Your task to perform on an android device: all mails in gmail Image 0: 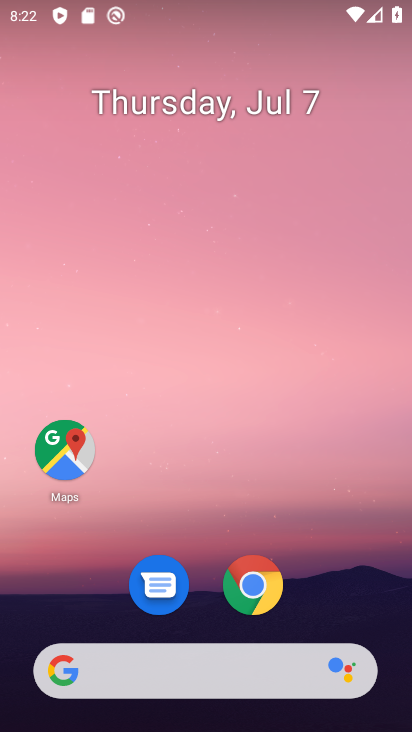
Step 0: drag from (283, 535) to (246, 42)
Your task to perform on an android device: all mails in gmail Image 1: 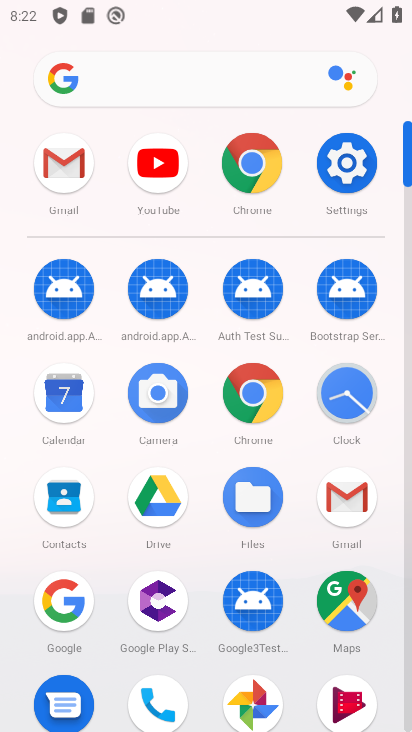
Step 1: click (70, 166)
Your task to perform on an android device: all mails in gmail Image 2: 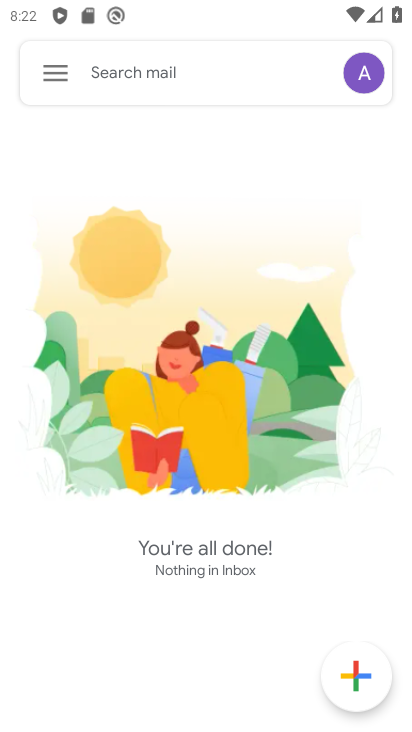
Step 2: click (59, 76)
Your task to perform on an android device: all mails in gmail Image 3: 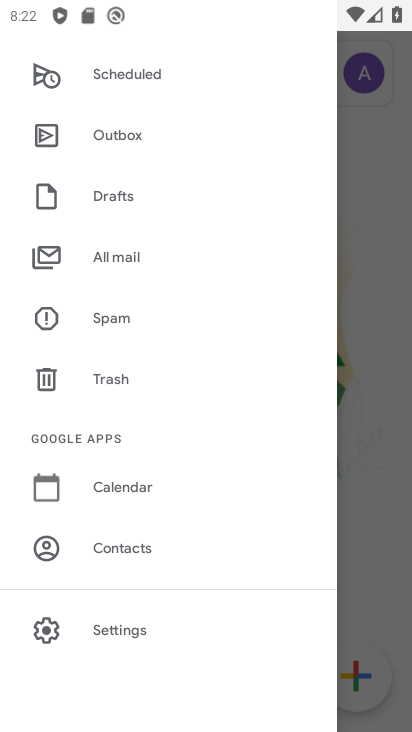
Step 3: click (127, 247)
Your task to perform on an android device: all mails in gmail Image 4: 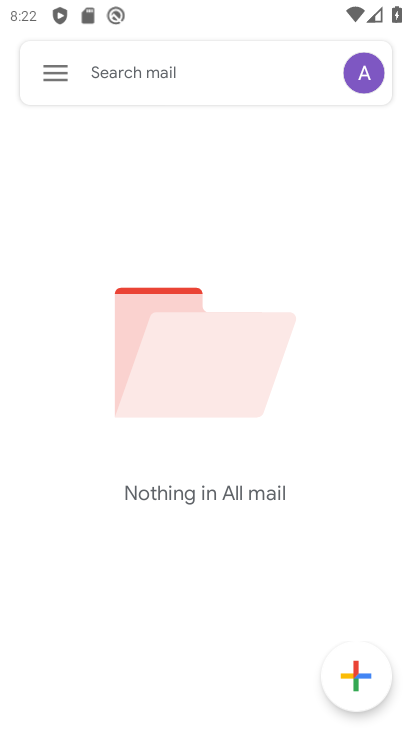
Step 4: task complete